Your task to perform on an android device: When is my next meeting? Image 0: 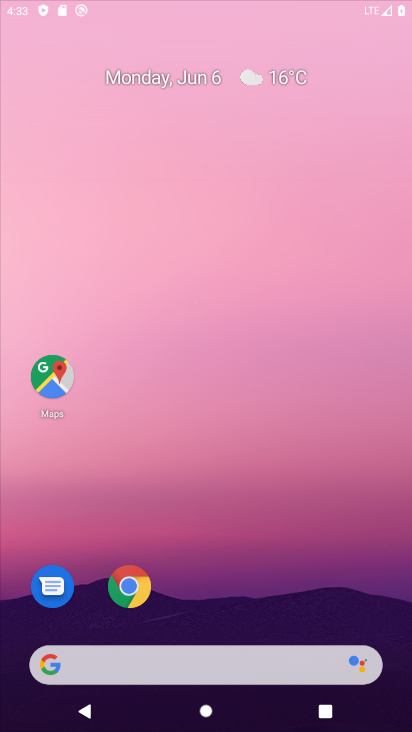
Step 0: click (14, 41)
Your task to perform on an android device: When is my next meeting? Image 1: 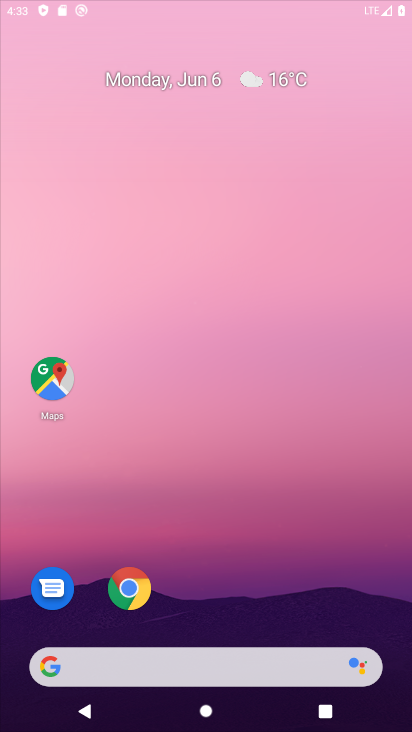
Step 1: drag from (273, 649) to (111, 35)
Your task to perform on an android device: When is my next meeting? Image 2: 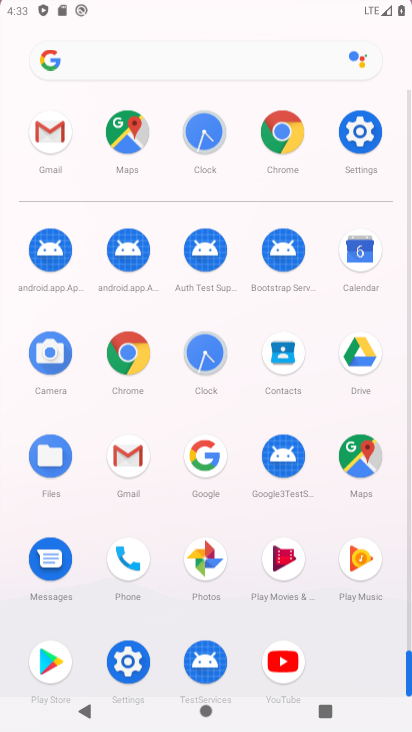
Step 2: drag from (253, 660) to (145, 25)
Your task to perform on an android device: When is my next meeting? Image 3: 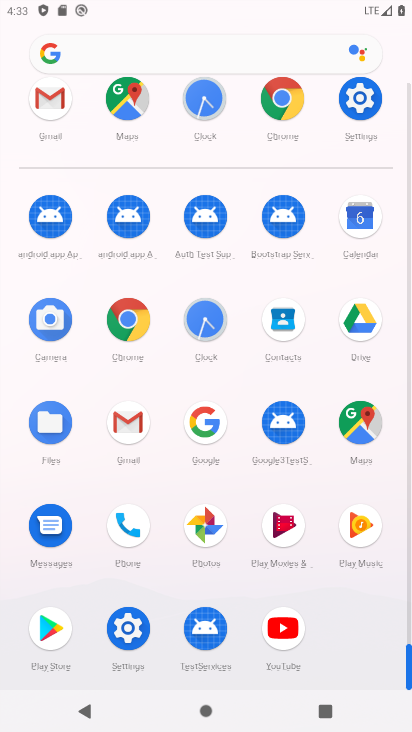
Step 3: click (358, 218)
Your task to perform on an android device: When is my next meeting? Image 4: 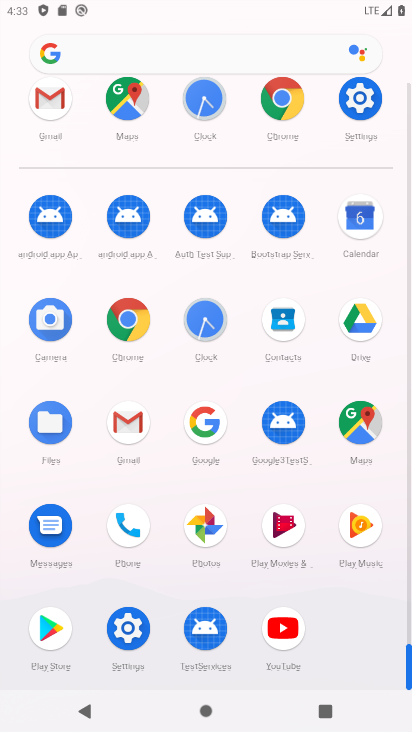
Step 4: click (359, 218)
Your task to perform on an android device: When is my next meeting? Image 5: 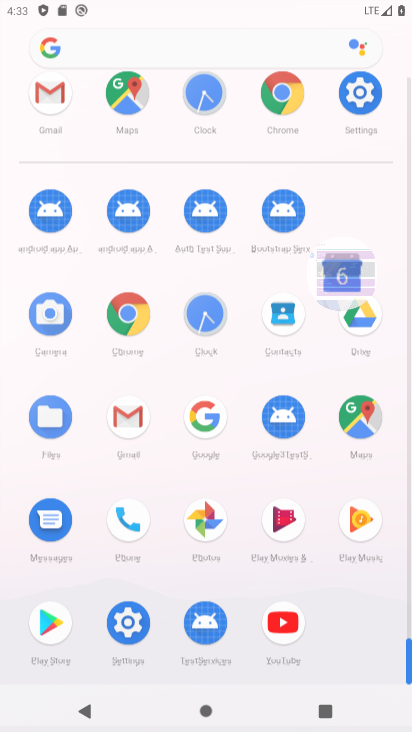
Step 5: click (359, 218)
Your task to perform on an android device: When is my next meeting? Image 6: 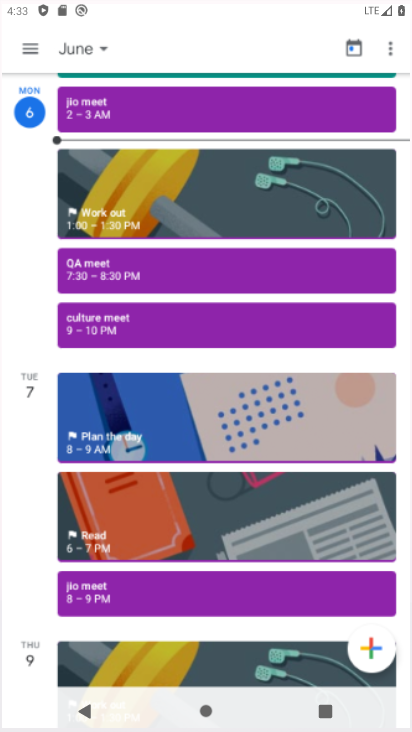
Step 6: click (360, 220)
Your task to perform on an android device: When is my next meeting? Image 7: 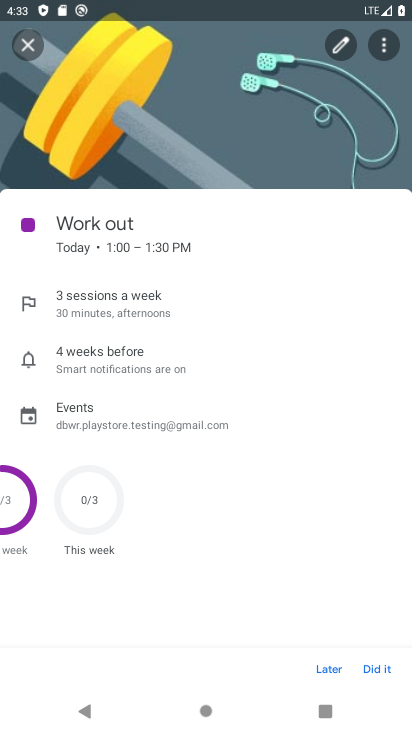
Step 7: task complete